Your task to perform on an android device: turn pop-ups on in chrome Image 0: 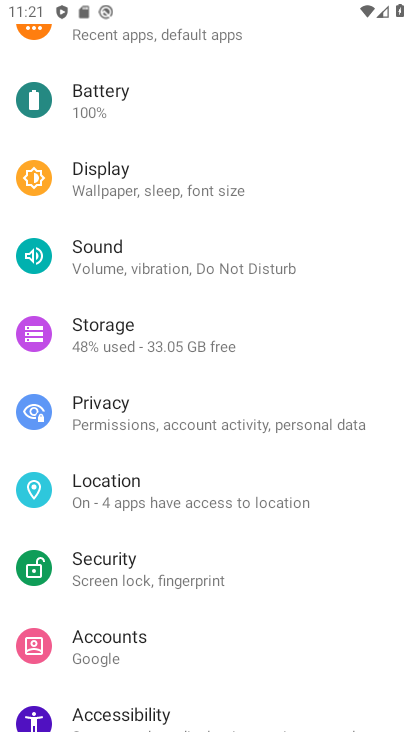
Step 0: press back button
Your task to perform on an android device: turn pop-ups on in chrome Image 1: 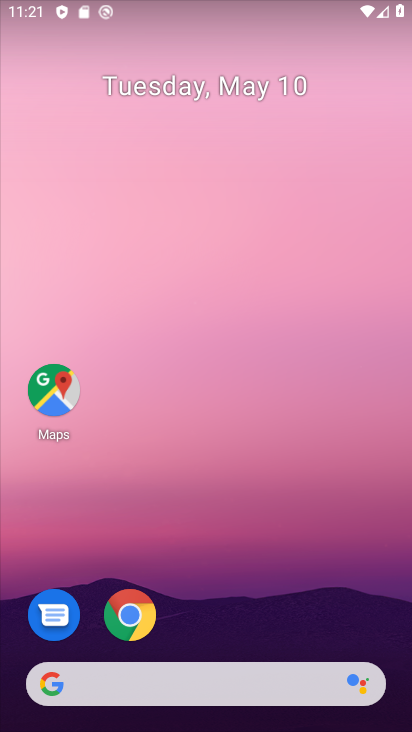
Step 1: drag from (235, 561) to (230, 20)
Your task to perform on an android device: turn pop-ups on in chrome Image 2: 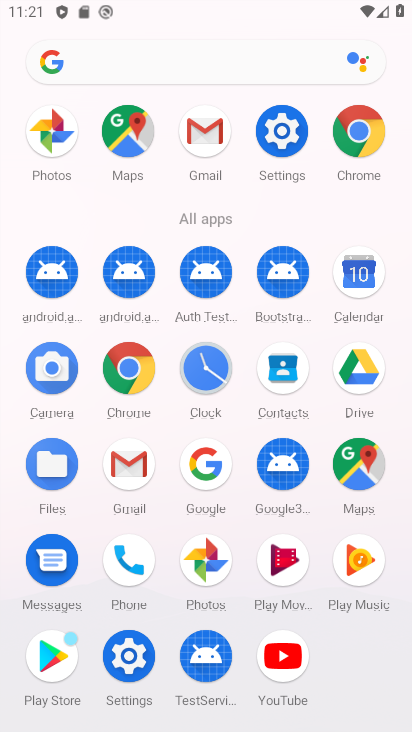
Step 2: click (128, 361)
Your task to perform on an android device: turn pop-ups on in chrome Image 3: 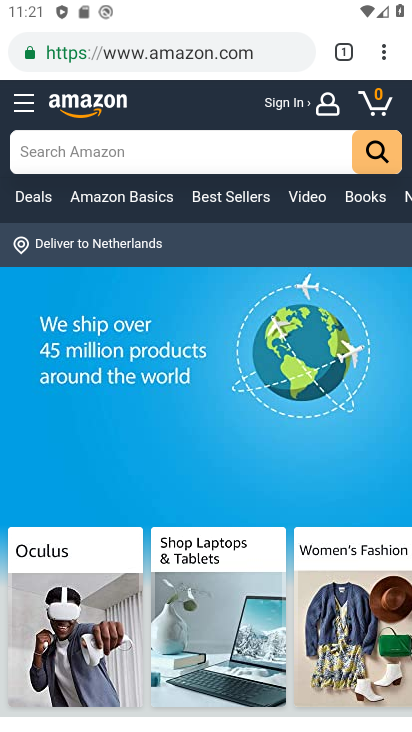
Step 3: drag from (381, 57) to (229, 625)
Your task to perform on an android device: turn pop-ups on in chrome Image 4: 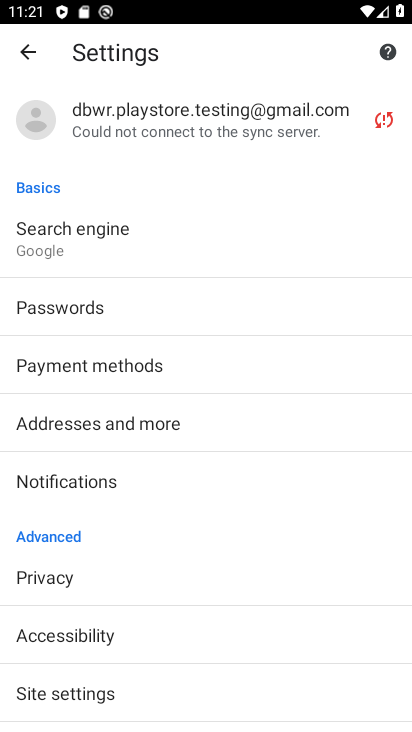
Step 4: drag from (209, 600) to (242, 228)
Your task to perform on an android device: turn pop-ups on in chrome Image 5: 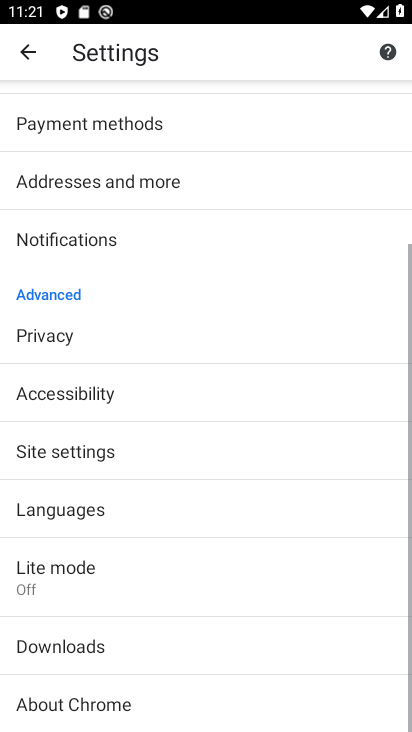
Step 5: drag from (182, 552) to (284, 180)
Your task to perform on an android device: turn pop-ups on in chrome Image 6: 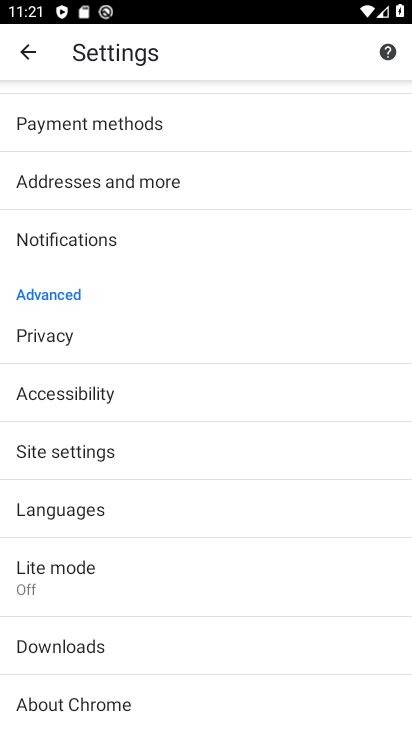
Step 6: click (132, 444)
Your task to perform on an android device: turn pop-ups on in chrome Image 7: 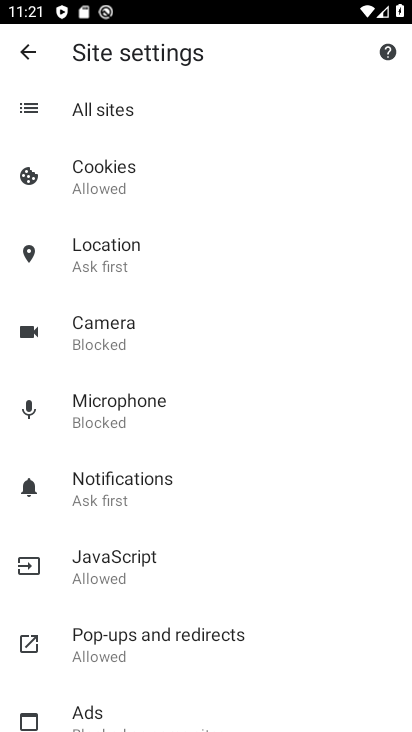
Step 7: drag from (197, 558) to (235, 166)
Your task to perform on an android device: turn pop-ups on in chrome Image 8: 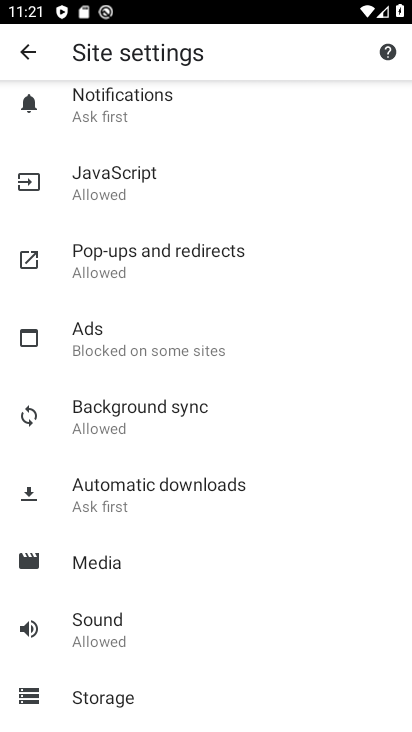
Step 8: drag from (208, 567) to (249, 154)
Your task to perform on an android device: turn pop-ups on in chrome Image 9: 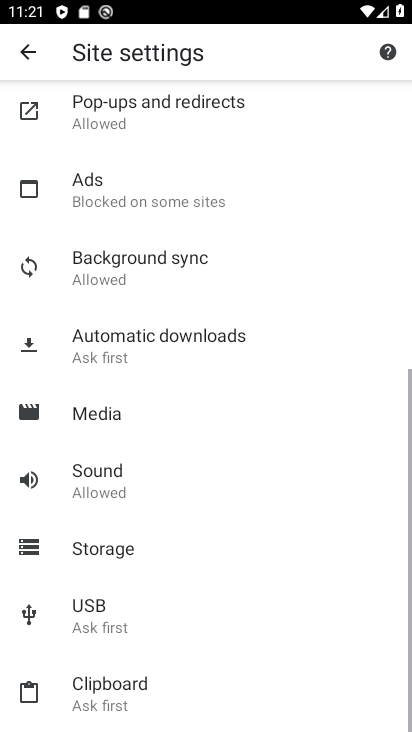
Step 9: drag from (216, 581) to (264, 150)
Your task to perform on an android device: turn pop-ups on in chrome Image 10: 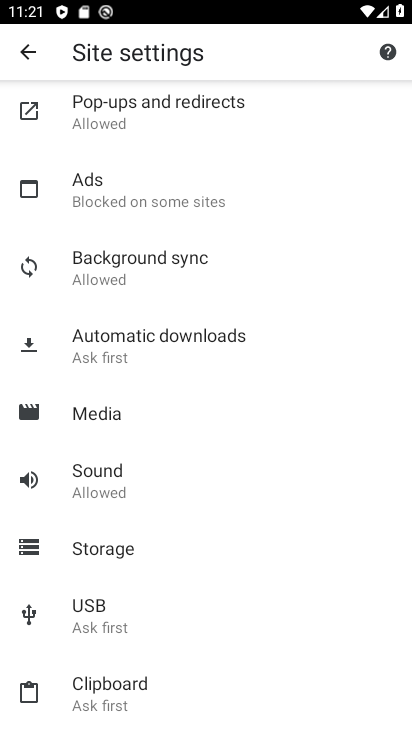
Step 10: drag from (267, 146) to (291, 637)
Your task to perform on an android device: turn pop-ups on in chrome Image 11: 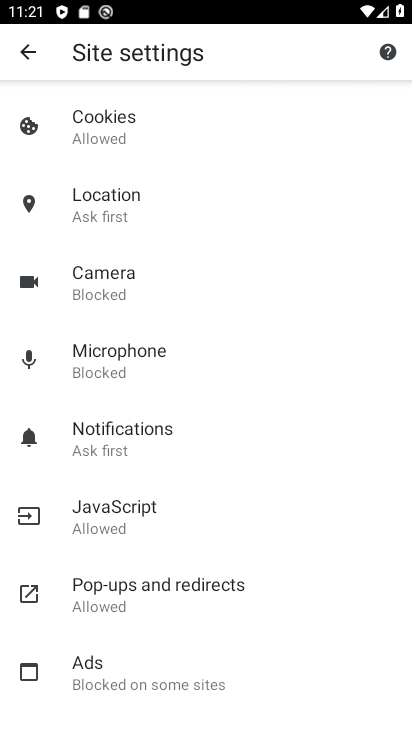
Step 11: drag from (240, 197) to (275, 518)
Your task to perform on an android device: turn pop-ups on in chrome Image 12: 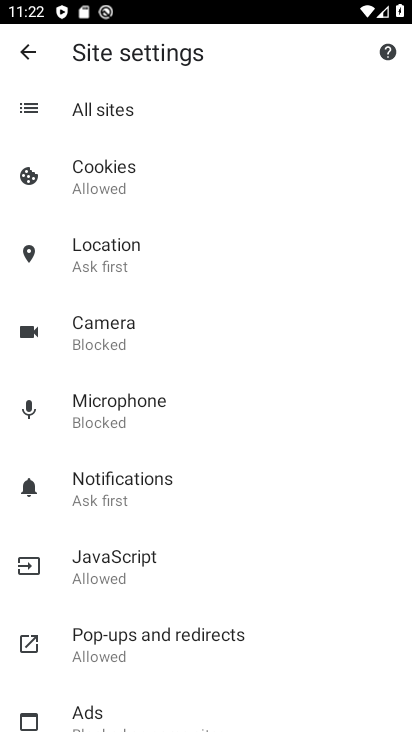
Step 12: click (190, 641)
Your task to perform on an android device: turn pop-ups on in chrome Image 13: 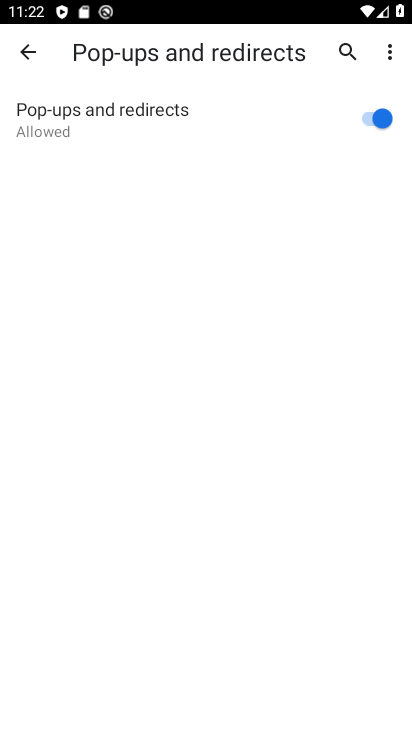
Step 13: task complete